Your task to perform on an android device: open wifi settings Image 0: 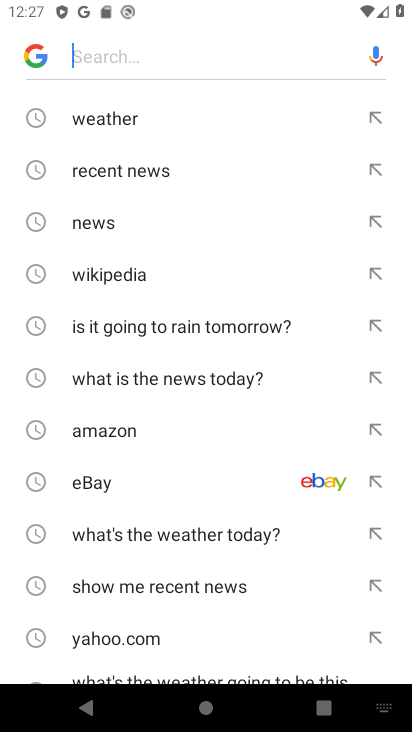
Step 0: press home button
Your task to perform on an android device: open wifi settings Image 1: 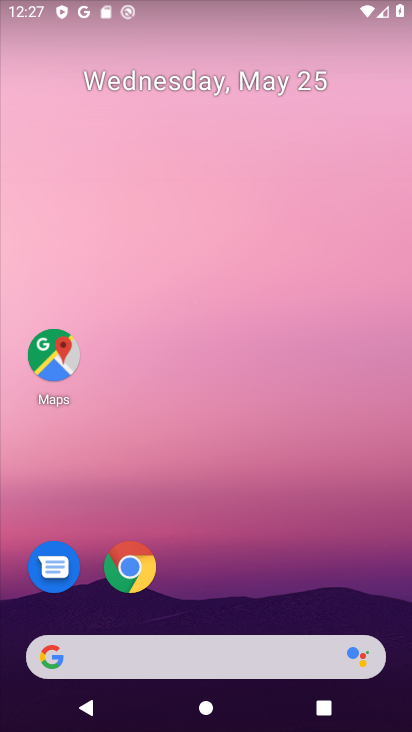
Step 1: drag from (268, 575) to (199, 117)
Your task to perform on an android device: open wifi settings Image 2: 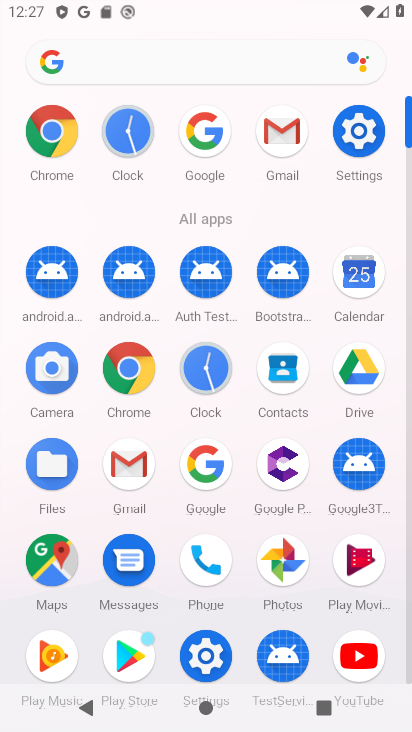
Step 2: click (360, 130)
Your task to perform on an android device: open wifi settings Image 3: 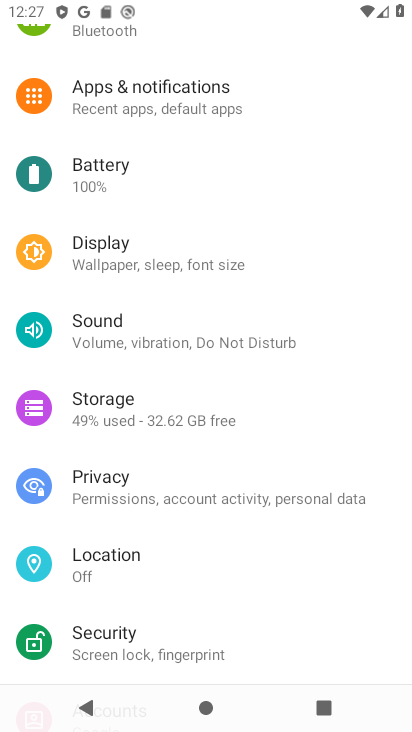
Step 3: drag from (180, 210) to (206, 340)
Your task to perform on an android device: open wifi settings Image 4: 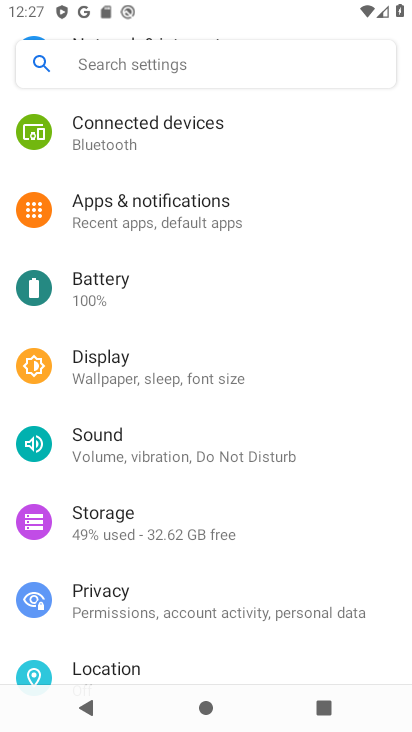
Step 4: drag from (181, 183) to (181, 351)
Your task to perform on an android device: open wifi settings Image 5: 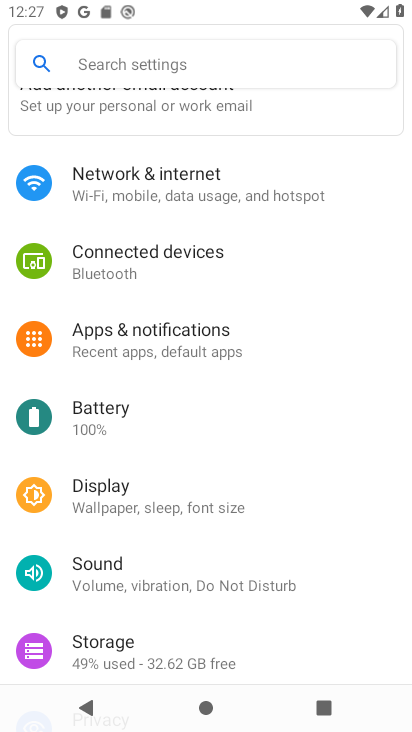
Step 5: click (149, 191)
Your task to perform on an android device: open wifi settings Image 6: 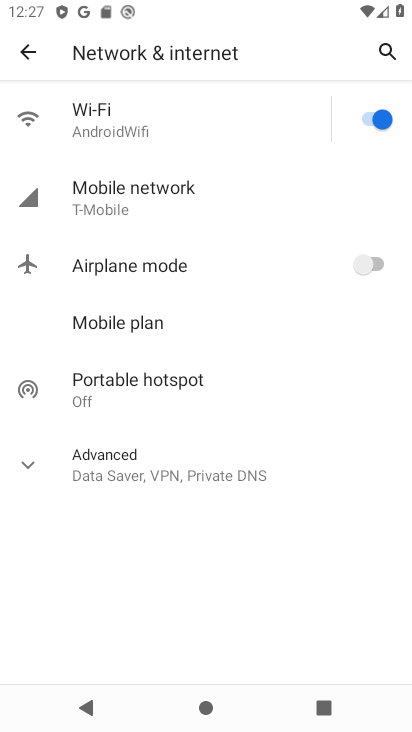
Step 6: click (115, 127)
Your task to perform on an android device: open wifi settings Image 7: 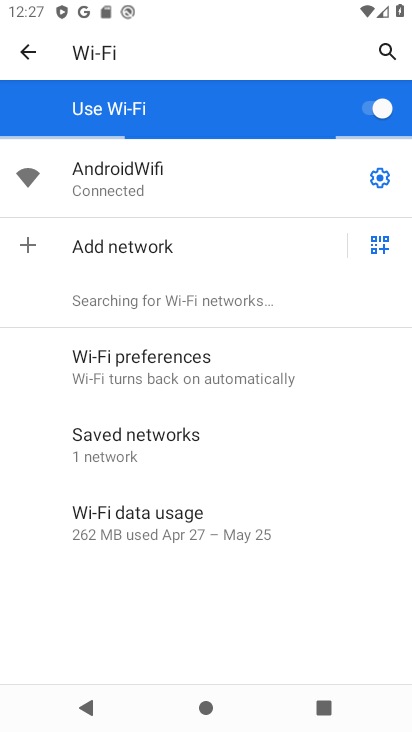
Step 7: click (378, 177)
Your task to perform on an android device: open wifi settings Image 8: 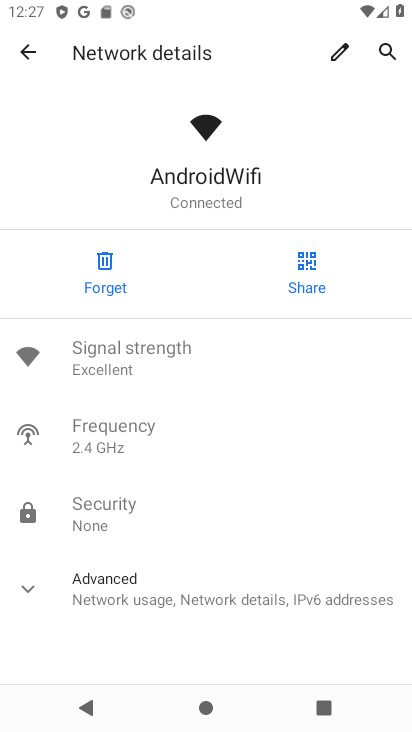
Step 8: task complete